Your task to perform on an android device: snooze an email in the gmail app Image 0: 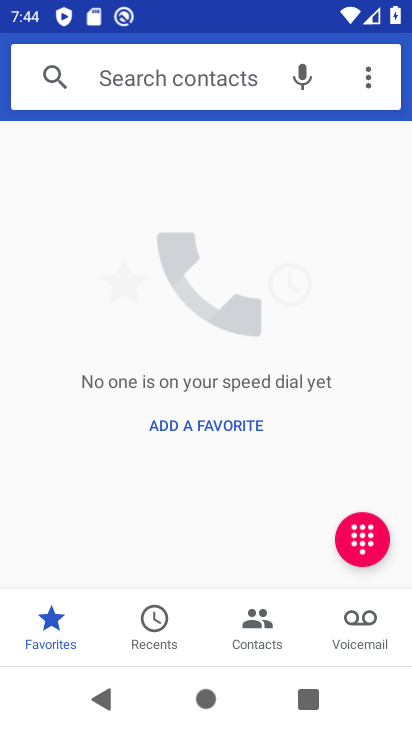
Step 0: press home button
Your task to perform on an android device: snooze an email in the gmail app Image 1: 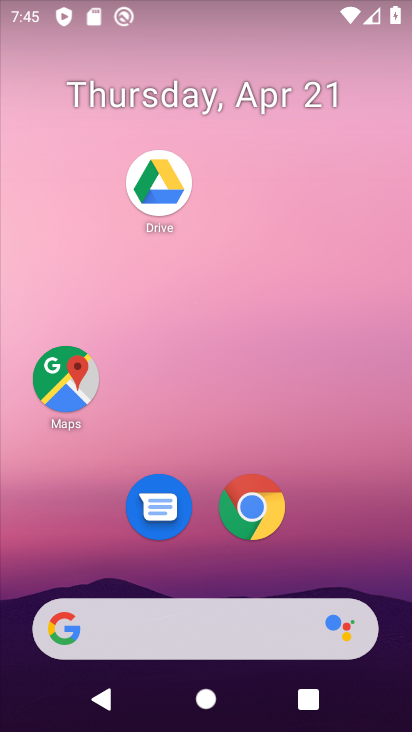
Step 1: drag from (348, 555) to (371, 121)
Your task to perform on an android device: snooze an email in the gmail app Image 2: 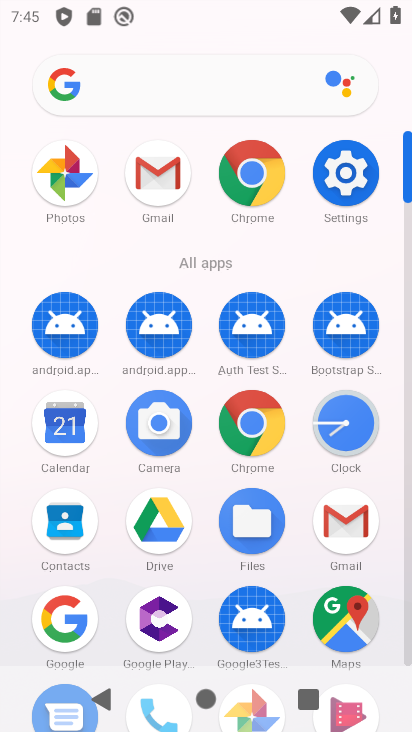
Step 2: click (354, 530)
Your task to perform on an android device: snooze an email in the gmail app Image 3: 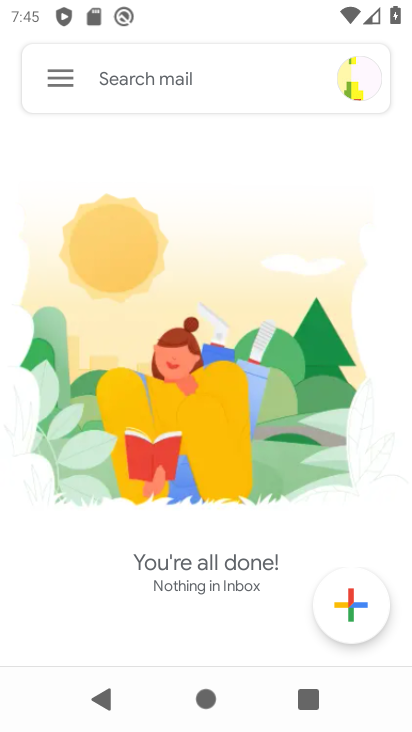
Step 3: click (56, 79)
Your task to perform on an android device: snooze an email in the gmail app Image 4: 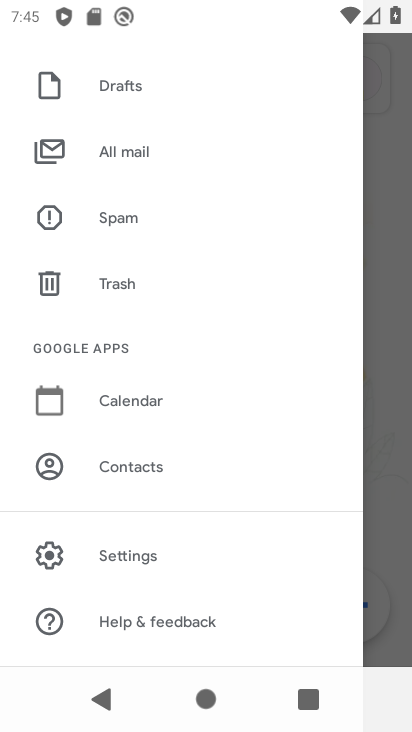
Step 4: drag from (296, 327) to (296, 462)
Your task to perform on an android device: snooze an email in the gmail app Image 5: 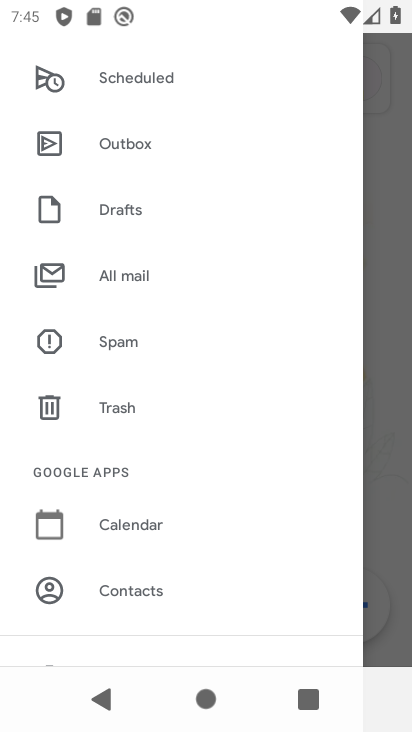
Step 5: drag from (303, 254) to (305, 418)
Your task to perform on an android device: snooze an email in the gmail app Image 6: 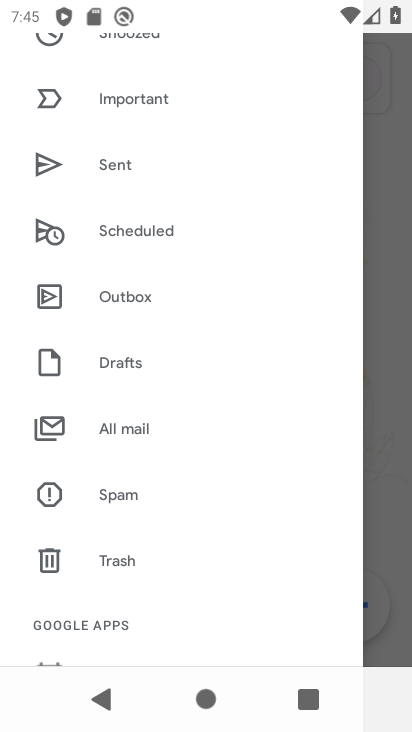
Step 6: drag from (304, 228) to (300, 371)
Your task to perform on an android device: snooze an email in the gmail app Image 7: 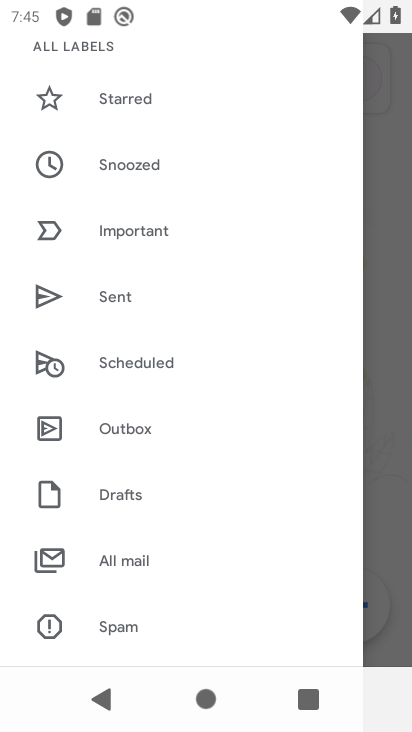
Step 7: drag from (307, 210) to (299, 352)
Your task to perform on an android device: snooze an email in the gmail app Image 8: 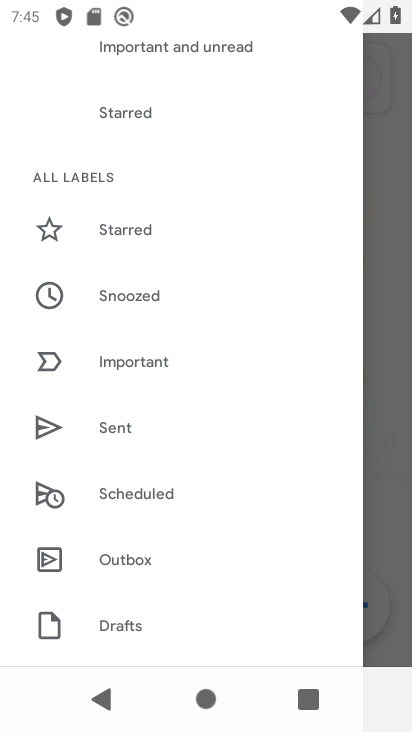
Step 8: drag from (308, 214) to (275, 378)
Your task to perform on an android device: snooze an email in the gmail app Image 9: 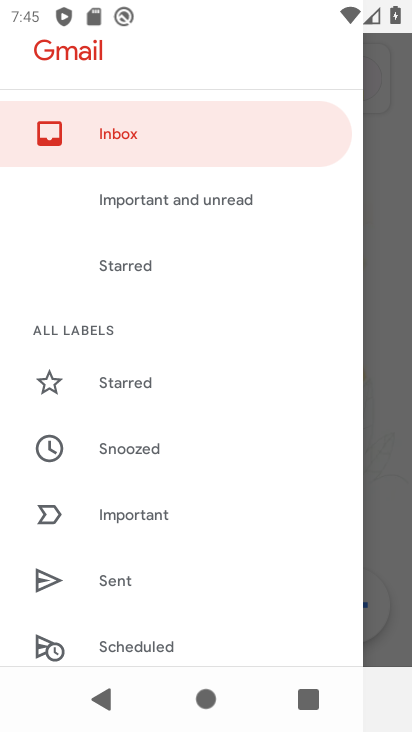
Step 9: drag from (293, 220) to (279, 390)
Your task to perform on an android device: snooze an email in the gmail app Image 10: 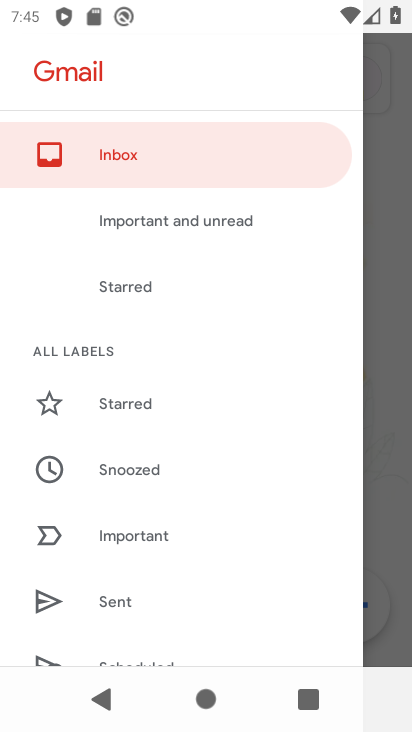
Step 10: drag from (265, 470) to (282, 295)
Your task to perform on an android device: snooze an email in the gmail app Image 11: 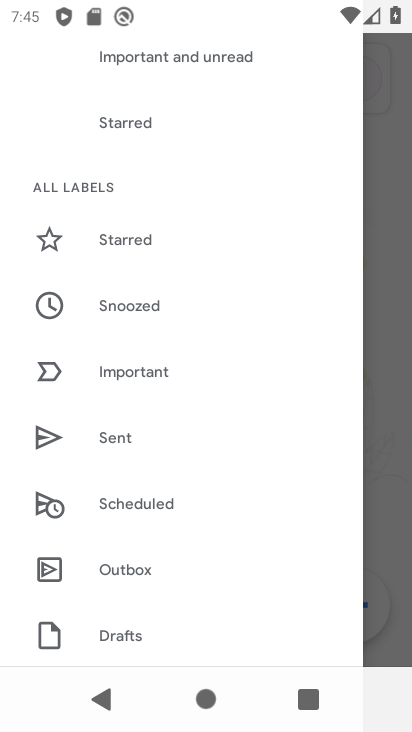
Step 11: drag from (272, 398) to (286, 303)
Your task to perform on an android device: snooze an email in the gmail app Image 12: 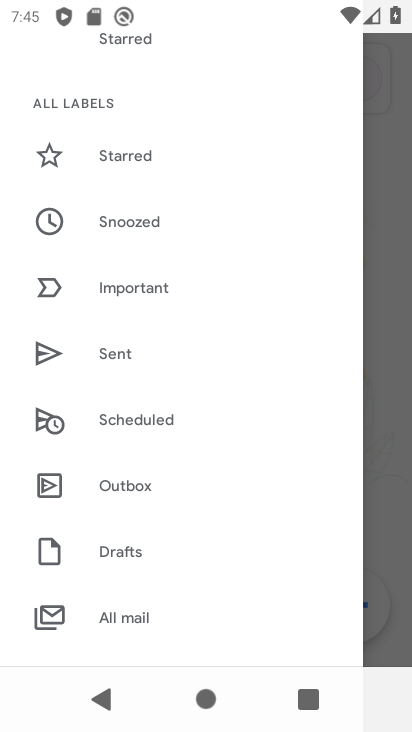
Step 12: click (136, 215)
Your task to perform on an android device: snooze an email in the gmail app Image 13: 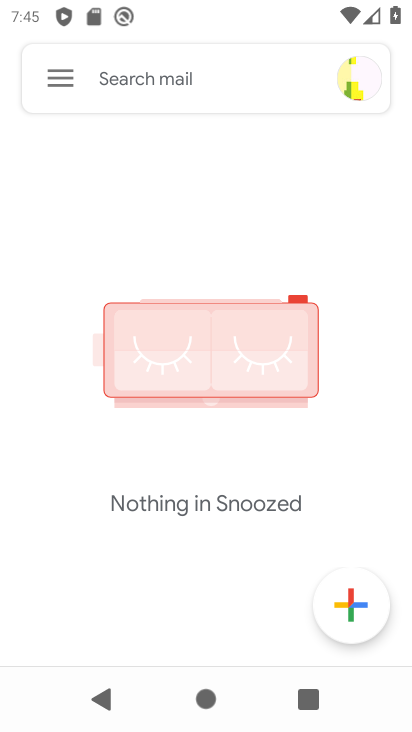
Step 13: task complete